Your task to perform on an android device: set default search engine in the chrome app Image 0: 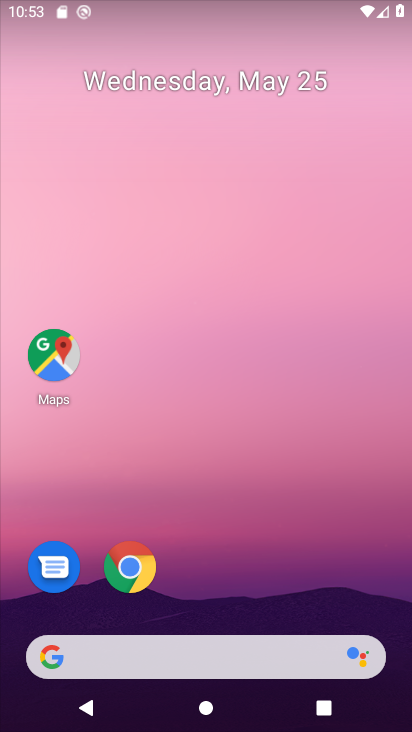
Step 0: click (133, 560)
Your task to perform on an android device: set default search engine in the chrome app Image 1: 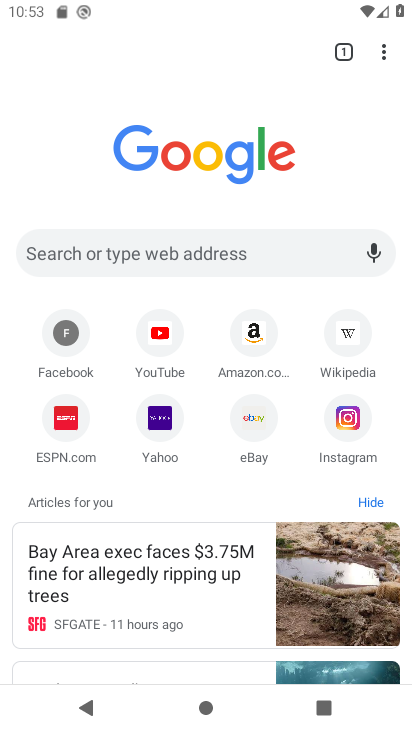
Step 1: click (391, 43)
Your task to perform on an android device: set default search engine in the chrome app Image 2: 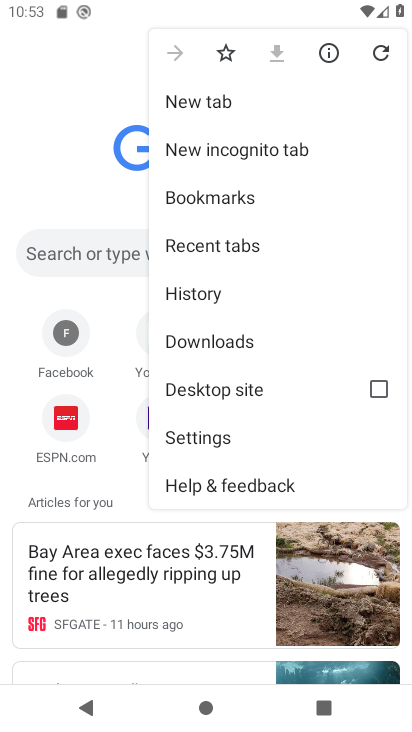
Step 2: click (215, 438)
Your task to perform on an android device: set default search engine in the chrome app Image 3: 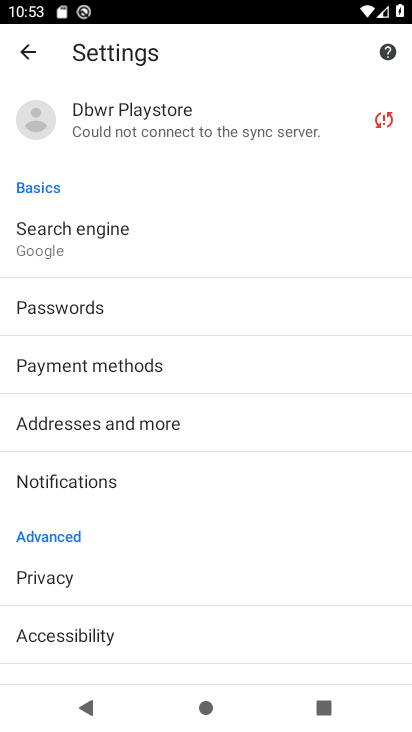
Step 3: click (99, 241)
Your task to perform on an android device: set default search engine in the chrome app Image 4: 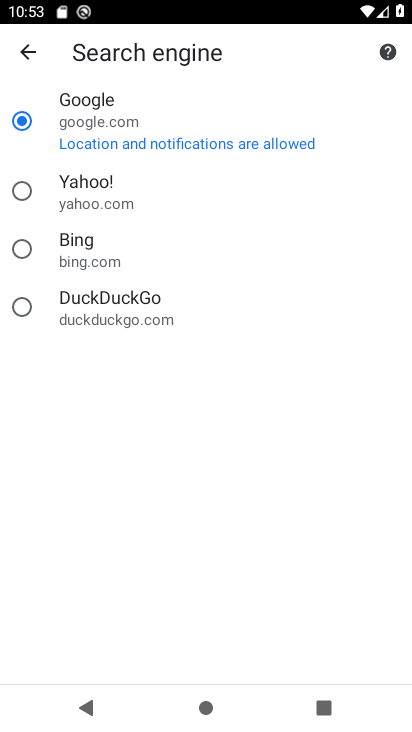
Step 4: task complete